Your task to perform on an android device: Do I have any events today? Image 0: 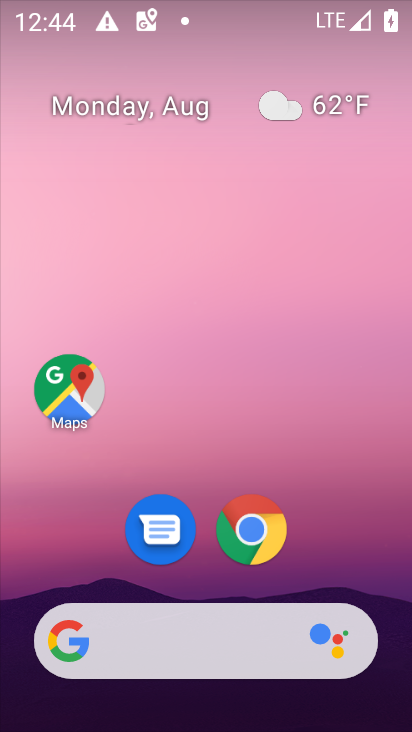
Step 0: drag from (113, 605) to (145, 218)
Your task to perform on an android device: Do I have any events today? Image 1: 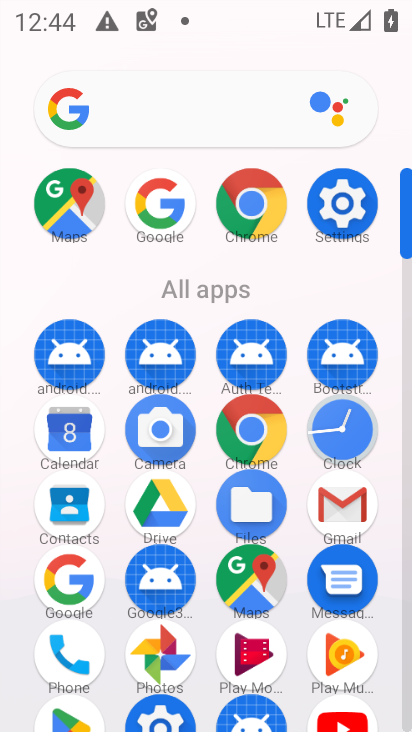
Step 1: click (65, 442)
Your task to perform on an android device: Do I have any events today? Image 2: 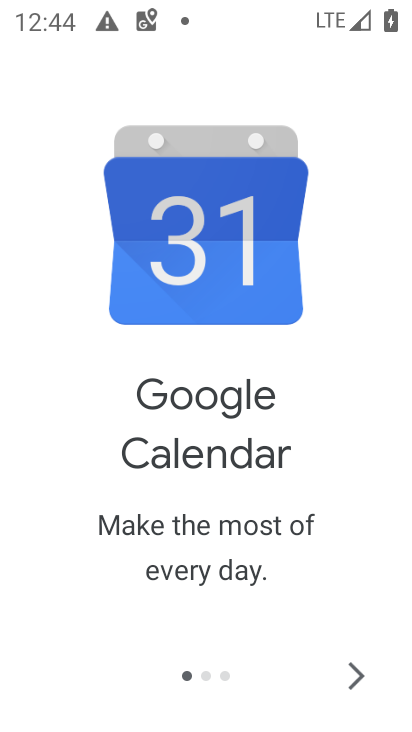
Step 2: click (349, 674)
Your task to perform on an android device: Do I have any events today? Image 3: 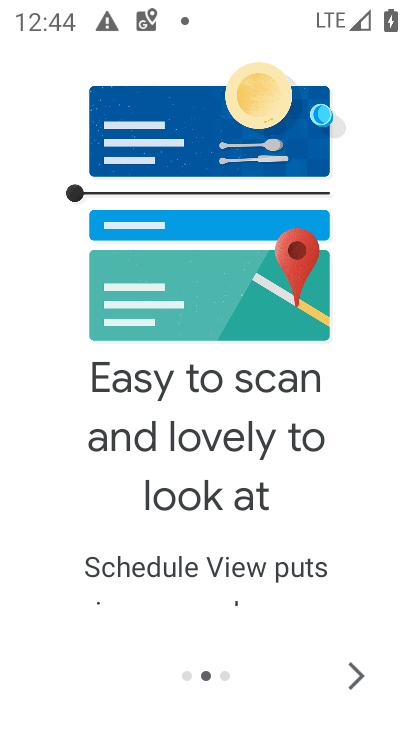
Step 3: click (349, 674)
Your task to perform on an android device: Do I have any events today? Image 4: 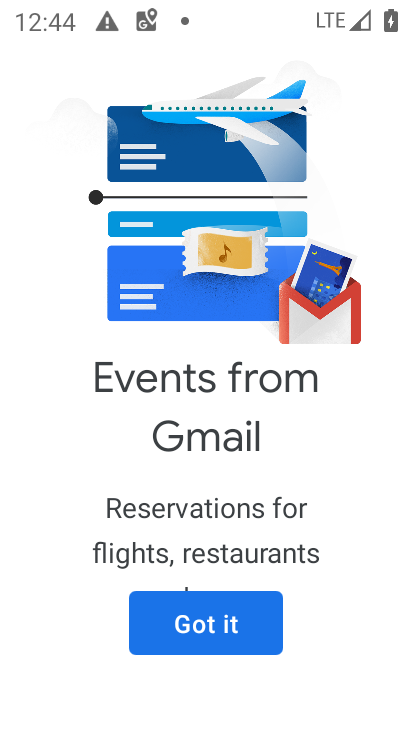
Step 4: click (188, 615)
Your task to perform on an android device: Do I have any events today? Image 5: 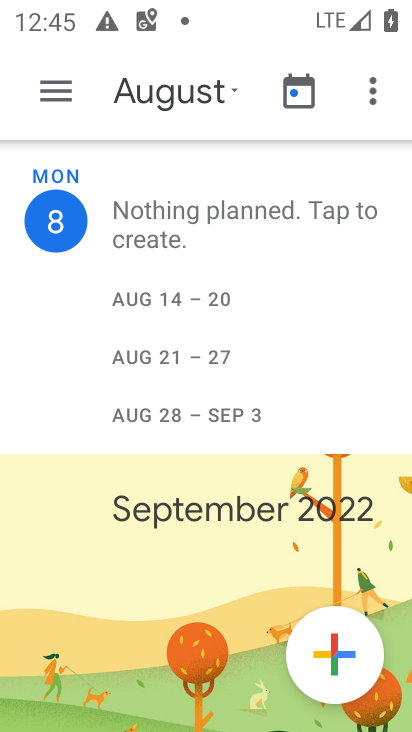
Step 5: click (199, 94)
Your task to perform on an android device: Do I have any events today? Image 6: 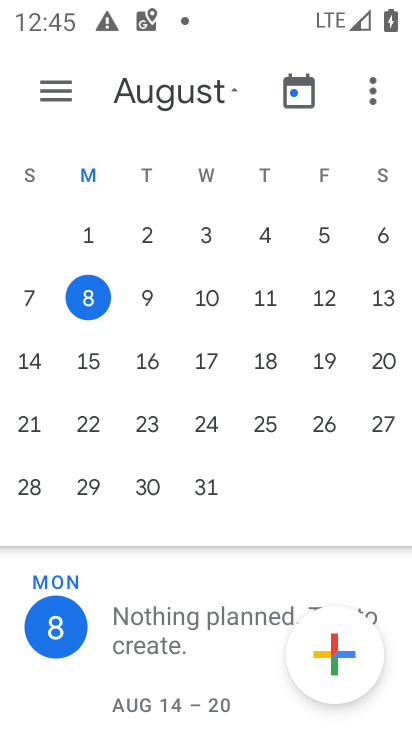
Step 6: task complete